Your task to perform on an android device: Search for jbl charge 4 on amazon, select the first entry, add it to the cart, then select checkout. Image 0: 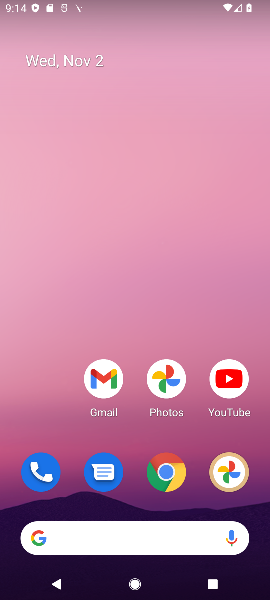
Step 0: task complete